Your task to perform on an android device: Show me popular games on the Play Store Image 0: 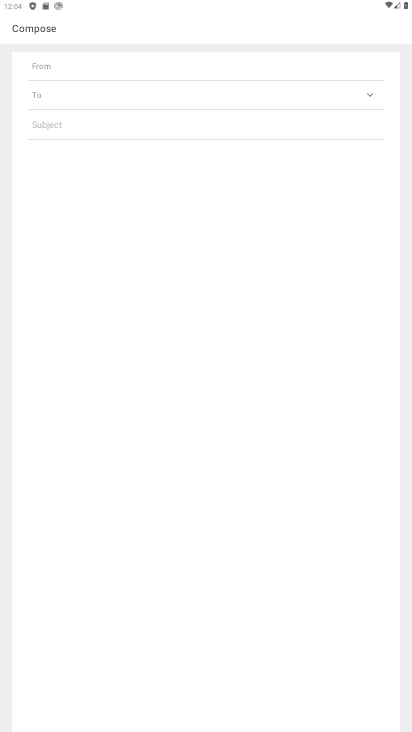
Step 0: drag from (245, 649) to (253, 313)
Your task to perform on an android device: Show me popular games on the Play Store Image 1: 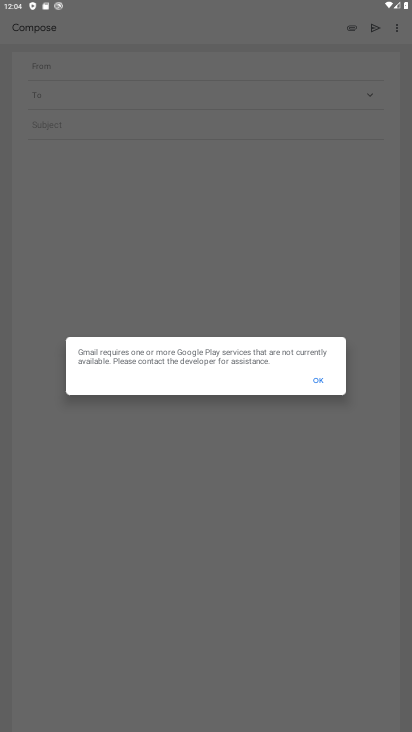
Step 1: press home button
Your task to perform on an android device: Show me popular games on the Play Store Image 2: 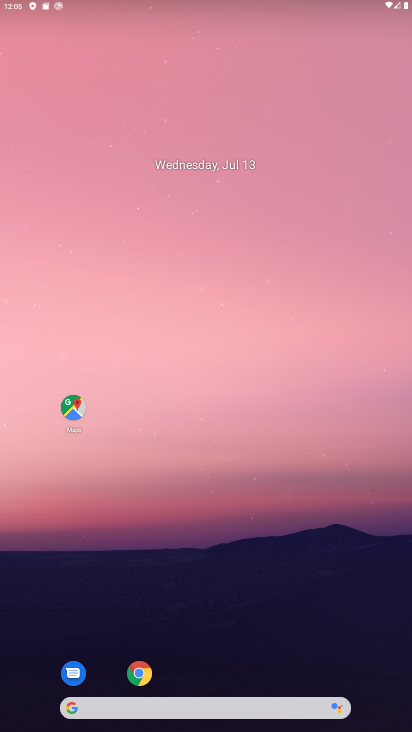
Step 2: drag from (303, 658) to (285, 139)
Your task to perform on an android device: Show me popular games on the Play Store Image 3: 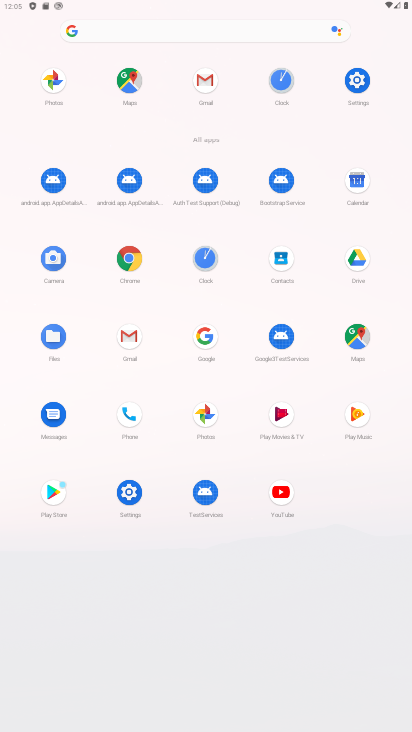
Step 3: click (60, 489)
Your task to perform on an android device: Show me popular games on the Play Store Image 4: 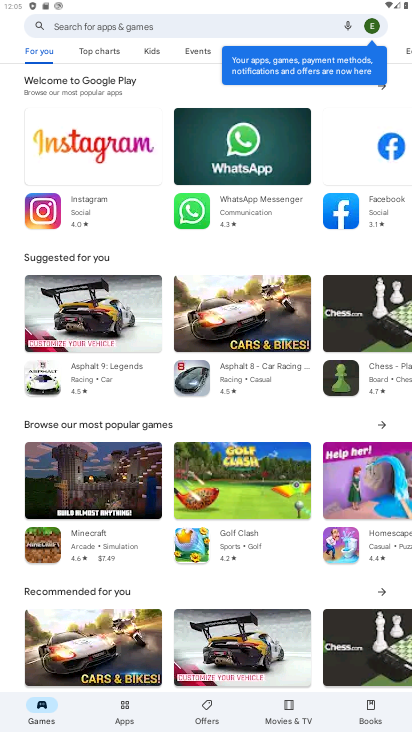
Step 4: click (100, 51)
Your task to perform on an android device: Show me popular games on the Play Store Image 5: 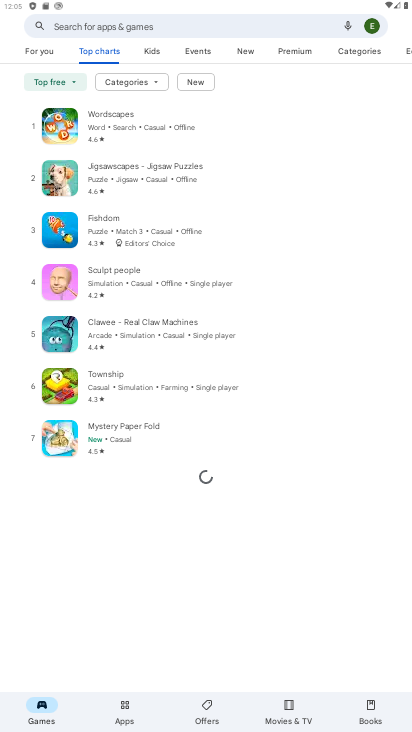
Step 5: task complete